Your task to perform on an android device: change notifications settings Image 0: 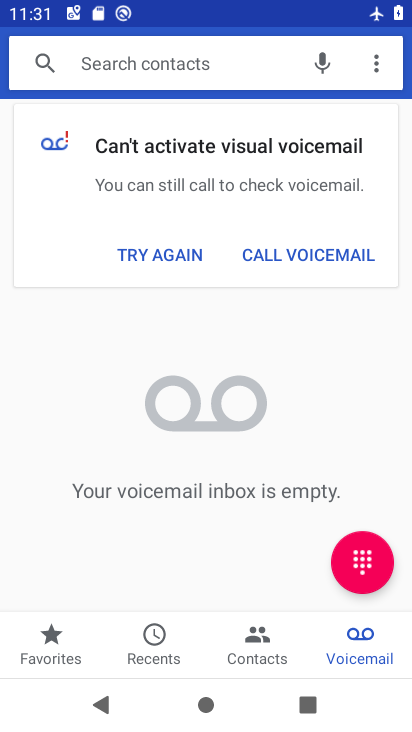
Step 0: press home button
Your task to perform on an android device: change notifications settings Image 1: 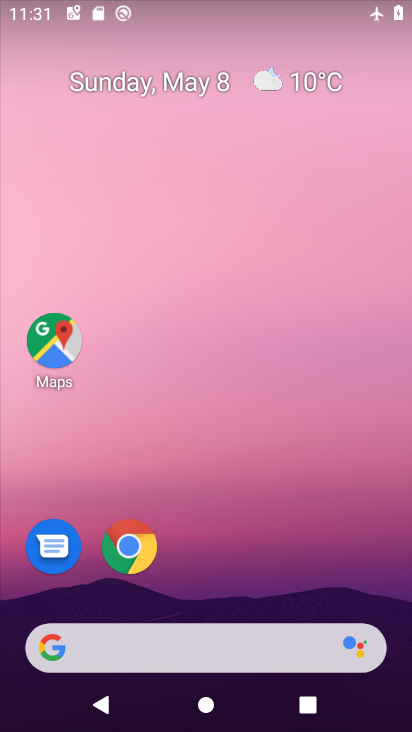
Step 1: drag from (327, 586) to (222, 2)
Your task to perform on an android device: change notifications settings Image 2: 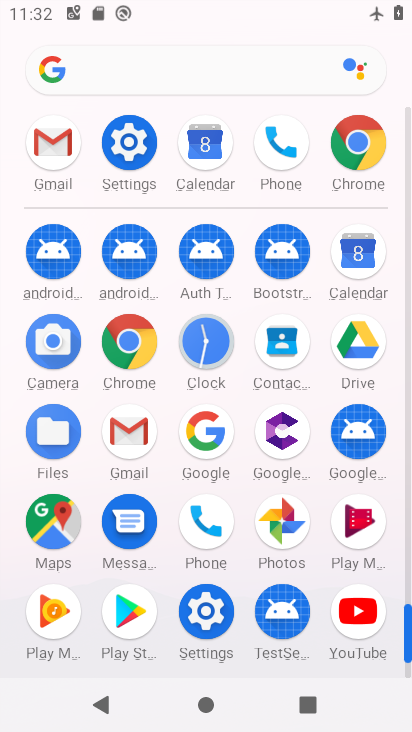
Step 2: click (207, 613)
Your task to perform on an android device: change notifications settings Image 3: 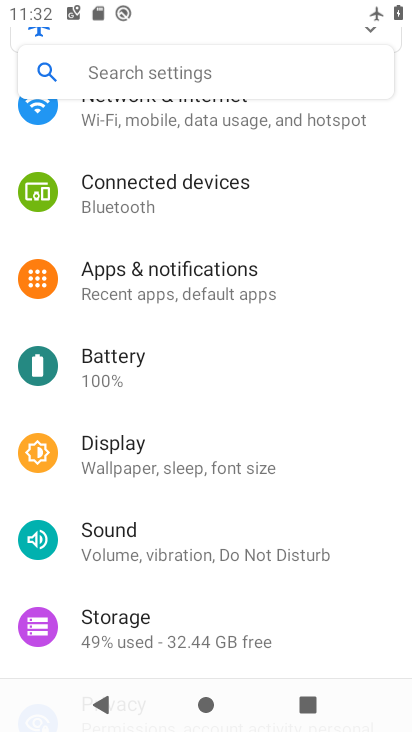
Step 3: click (122, 273)
Your task to perform on an android device: change notifications settings Image 4: 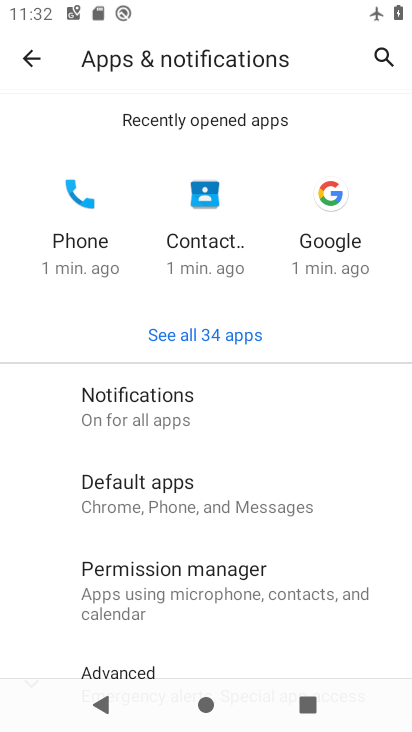
Step 4: click (125, 392)
Your task to perform on an android device: change notifications settings Image 5: 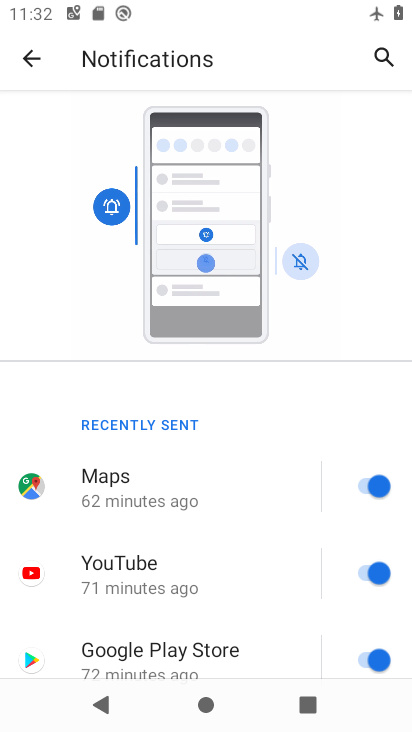
Step 5: drag from (188, 540) to (156, 93)
Your task to perform on an android device: change notifications settings Image 6: 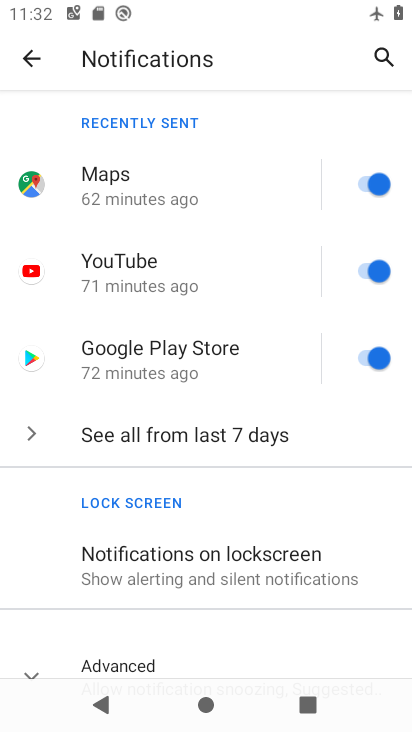
Step 6: drag from (245, 586) to (235, 177)
Your task to perform on an android device: change notifications settings Image 7: 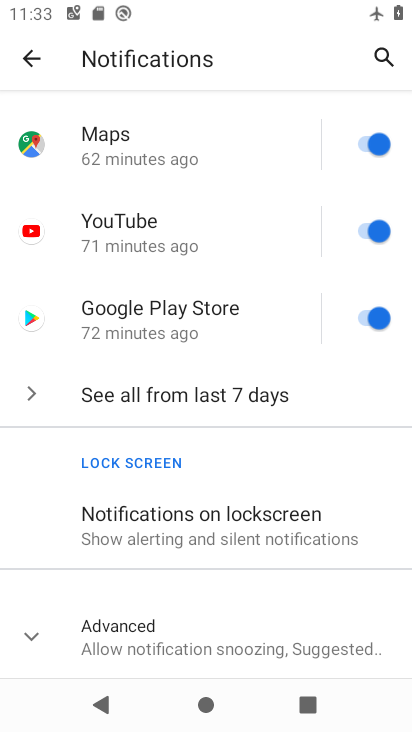
Step 7: click (28, 638)
Your task to perform on an android device: change notifications settings Image 8: 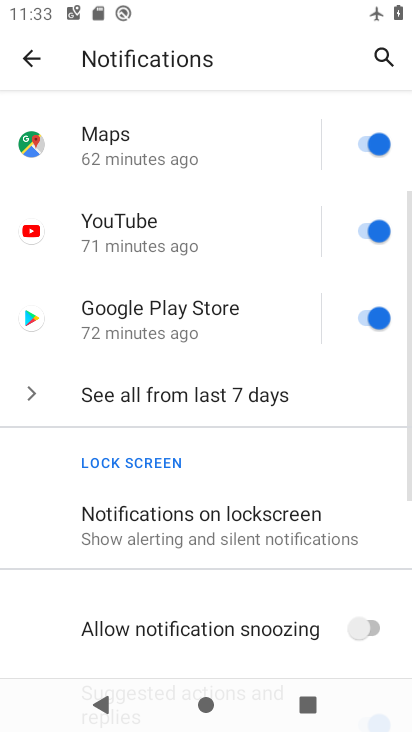
Step 8: drag from (323, 636) to (260, 247)
Your task to perform on an android device: change notifications settings Image 9: 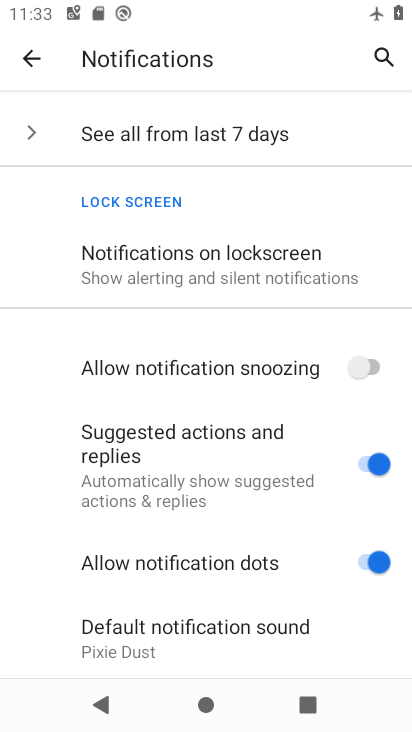
Step 9: click (372, 365)
Your task to perform on an android device: change notifications settings Image 10: 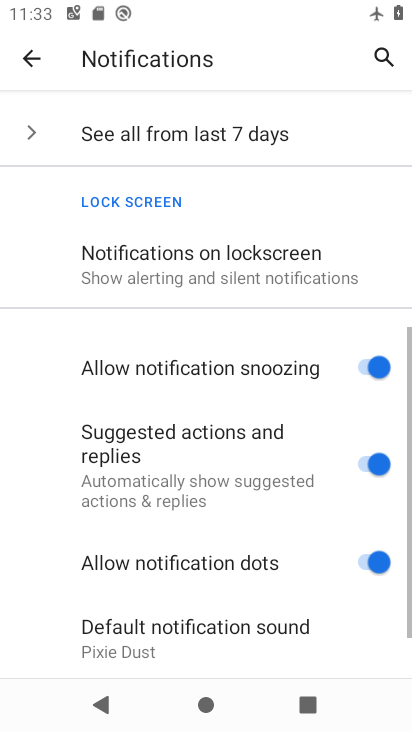
Step 10: click (367, 566)
Your task to perform on an android device: change notifications settings Image 11: 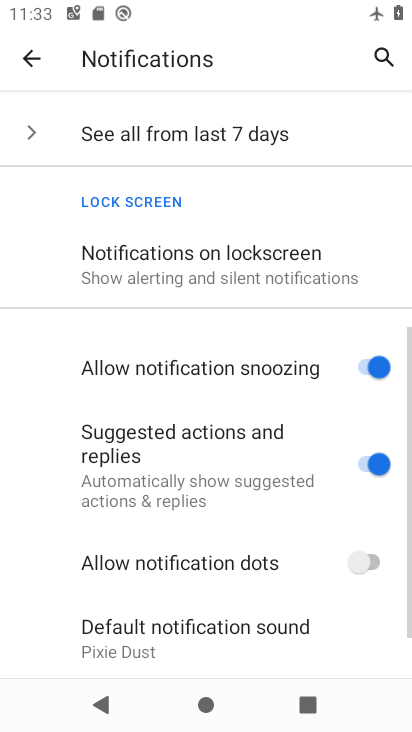
Step 11: task complete